Your task to perform on an android device: star an email in the gmail app Image 0: 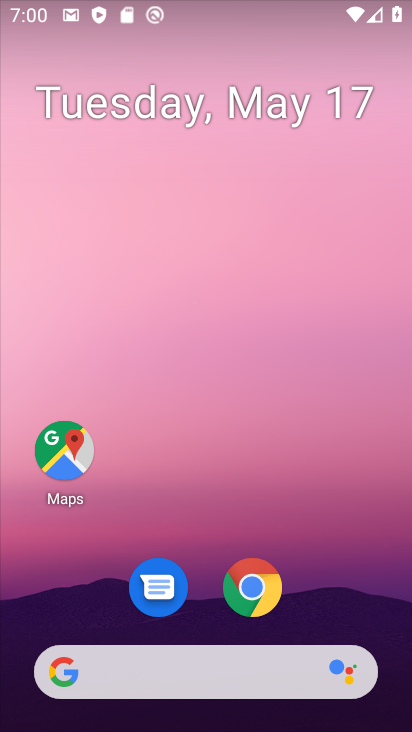
Step 0: drag from (252, 717) to (353, 324)
Your task to perform on an android device: star an email in the gmail app Image 1: 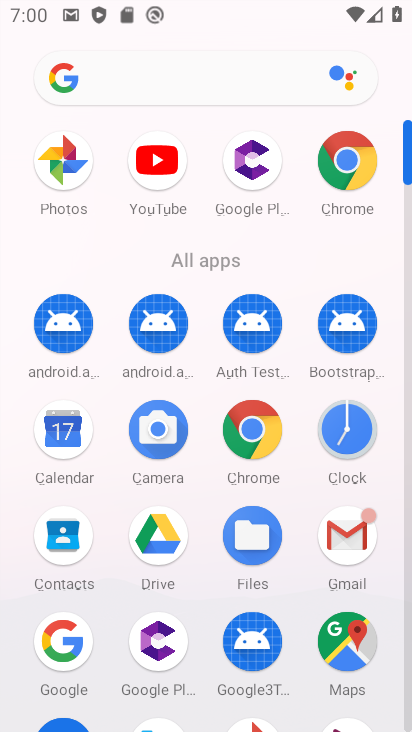
Step 1: click (350, 531)
Your task to perform on an android device: star an email in the gmail app Image 2: 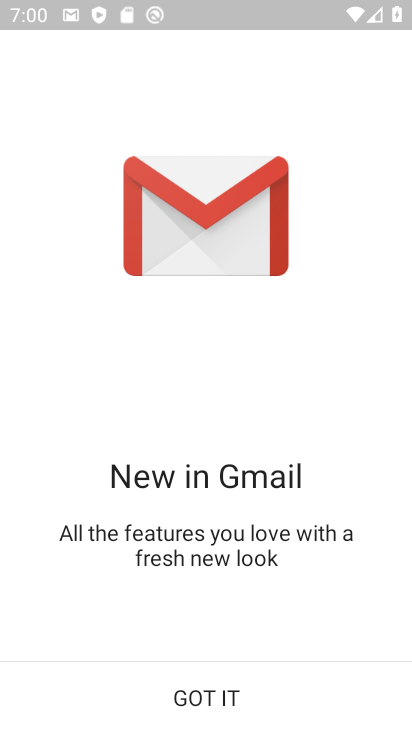
Step 2: click (222, 709)
Your task to perform on an android device: star an email in the gmail app Image 3: 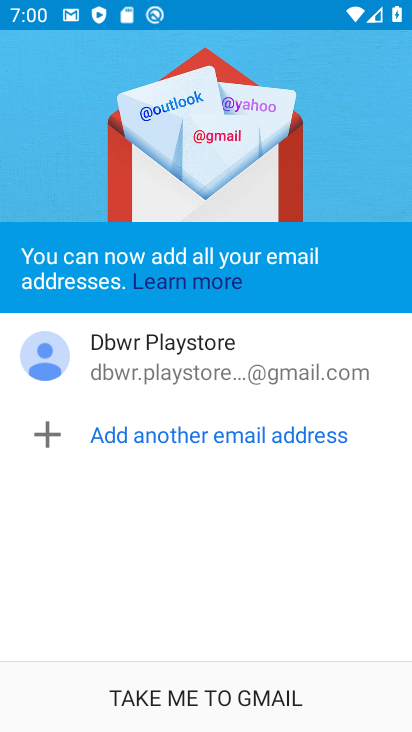
Step 3: click (207, 696)
Your task to perform on an android device: star an email in the gmail app Image 4: 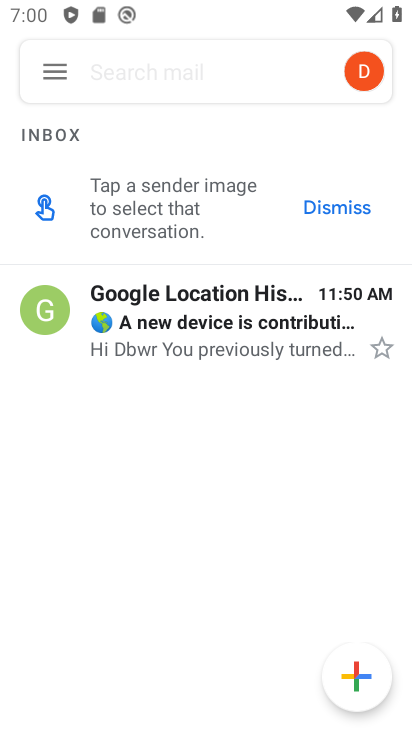
Step 4: click (338, 205)
Your task to perform on an android device: star an email in the gmail app Image 5: 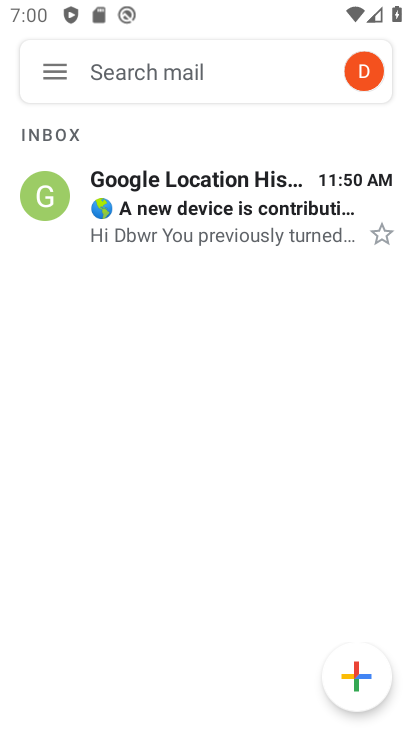
Step 5: click (47, 70)
Your task to perform on an android device: star an email in the gmail app Image 6: 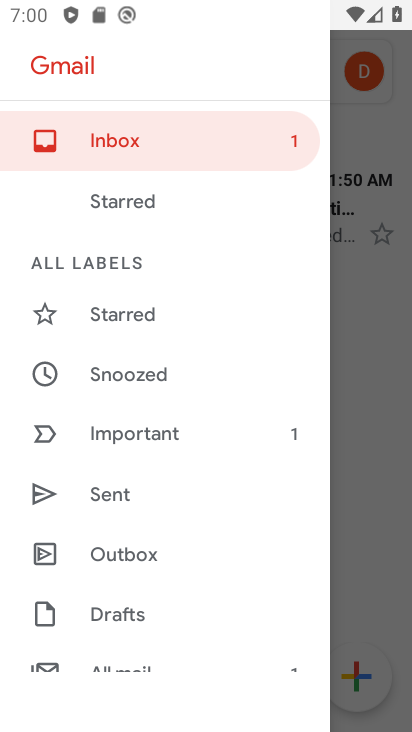
Step 6: click (381, 315)
Your task to perform on an android device: star an email in the gmail app Image 7: 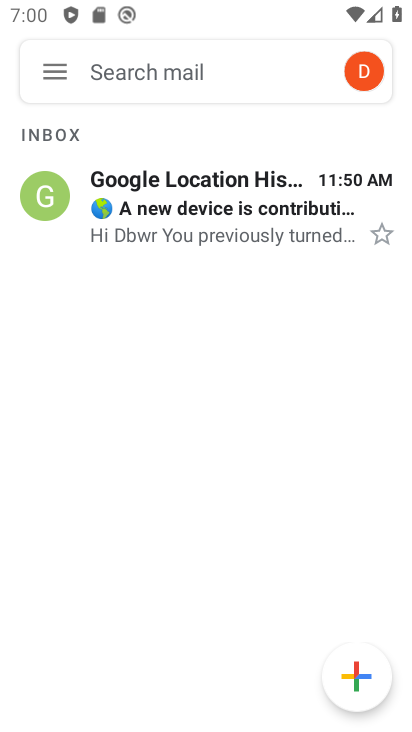
Step 7: click (236, 205)
Your task to perform on an android device: star an email in the gmail app Image 8: 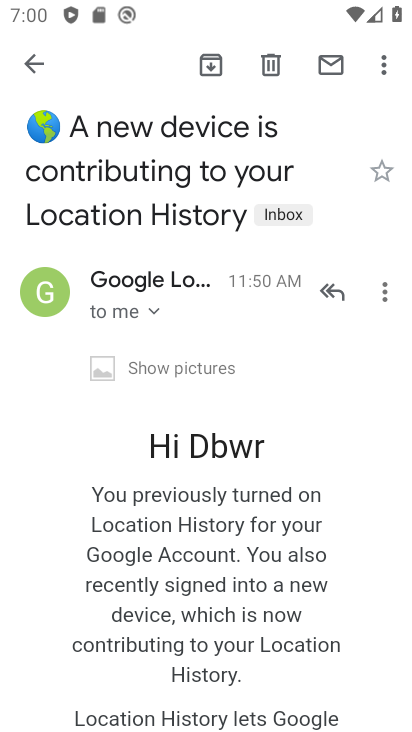
Step 8: click (379, 169)
Your task to perform on an android device: star an email in the gmail app Image 9: 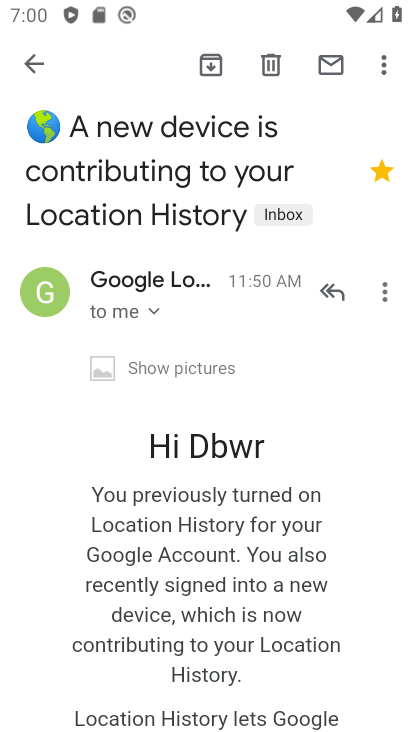
Step 9: task complete